Your task to perform on an android device: toggle wifi Image 0: 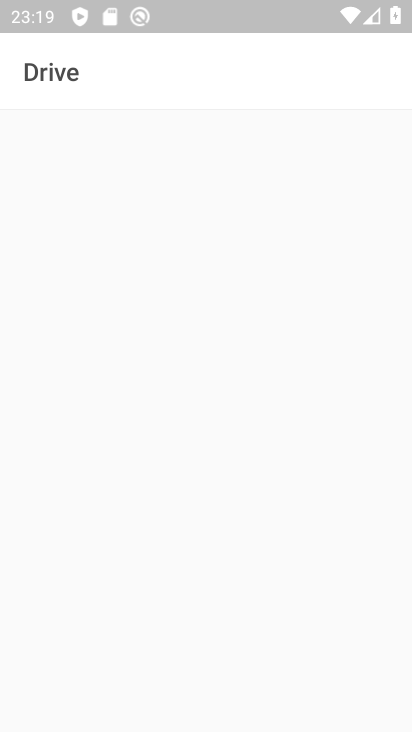
Step 0: press home button
Your task to perform on an android device: toggle wifi Image 1: 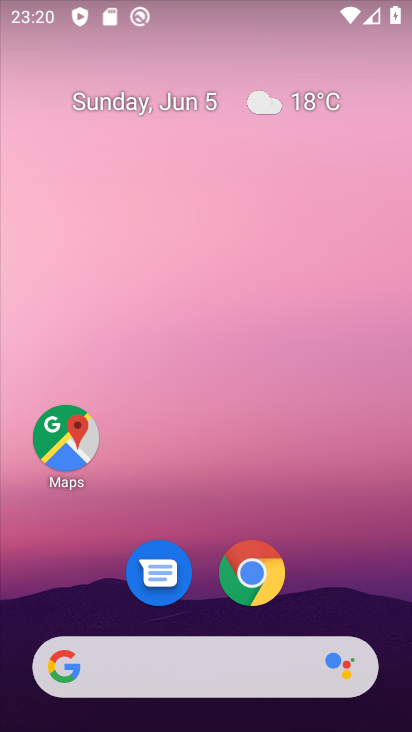
Step 1: drag from (208, 655) to (117, 64)
Your task to perform on an android device: toggle wifi Image 2: 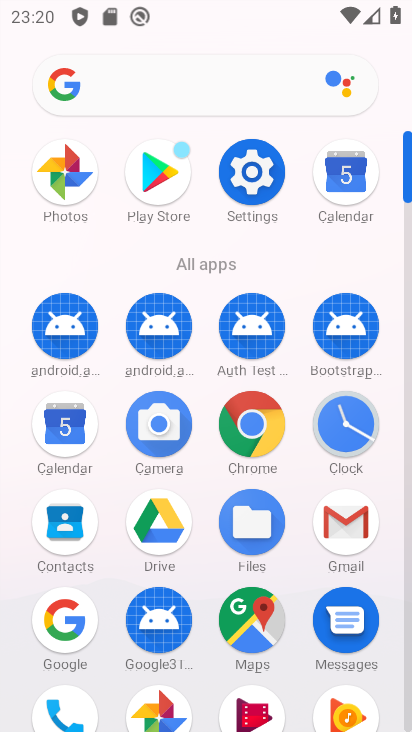
Step 2: click (250, 160)
Your task to perform on an android device: toggle wifi Image 3: 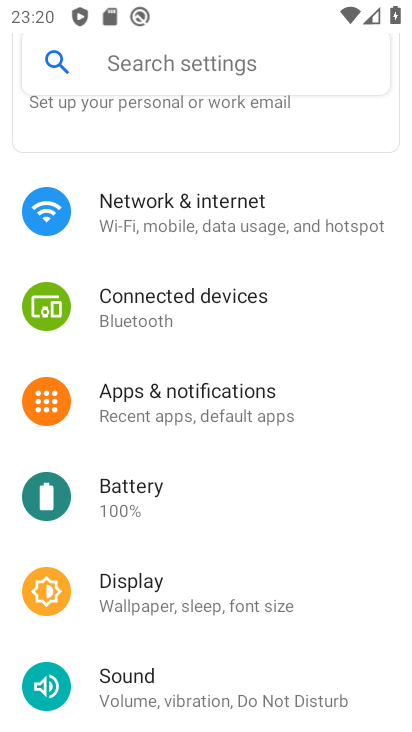
Step 3: click (166, 220)
Your task to perform on an android device: toggle wifi Image 4: 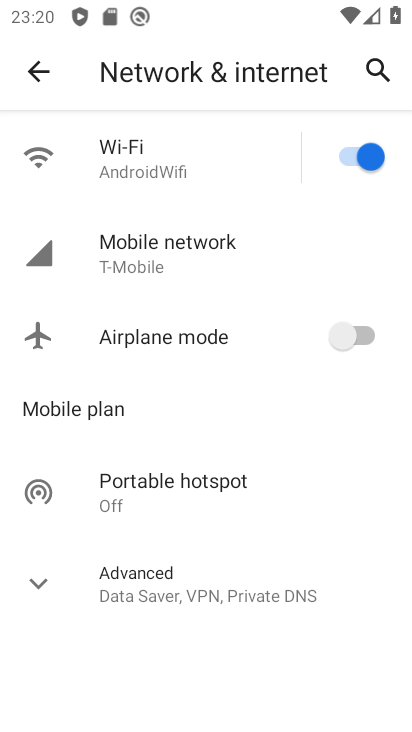
Step 4: click (351, 155)
Your task to perform on an android device: toggle wifi Image 5: 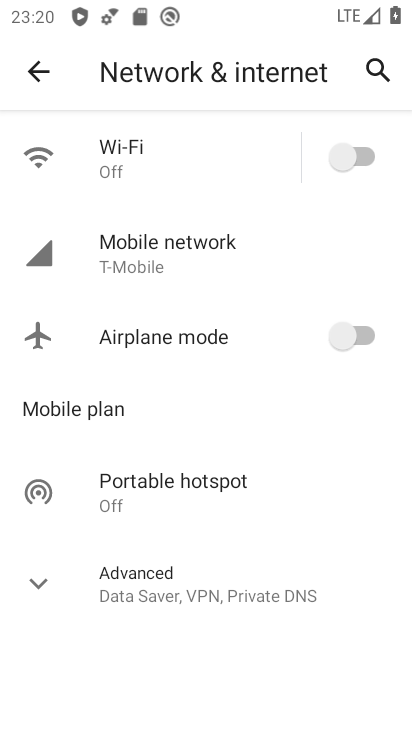
Step 5: task complete